Your task to perform on an android device: turn vacation reply on in the gmail app Image 0: 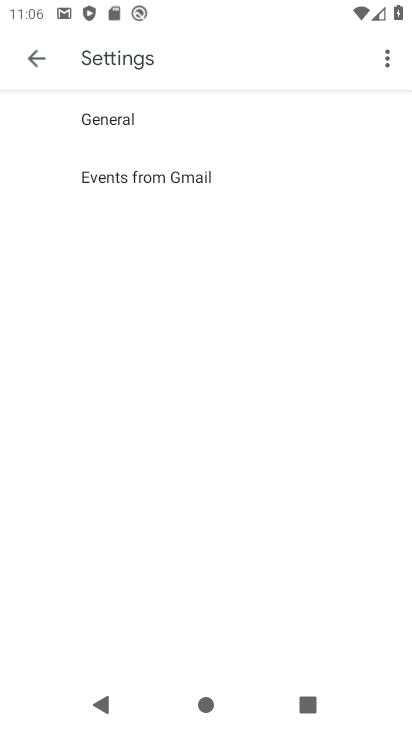
Step 0: press home button
Your task to perform on an android device: turn vacation reply on in the gmail app Image 1: 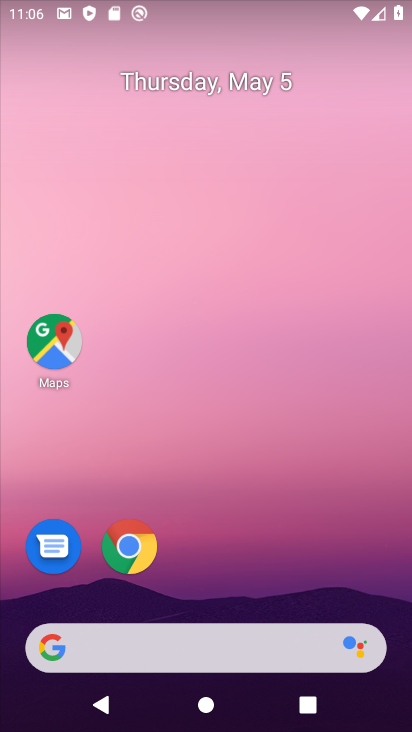
Step 1: drag from (240, 627) to (79, 40)
Your task to perform on an android device: turn vacation reply on in the gmail app Image 2: 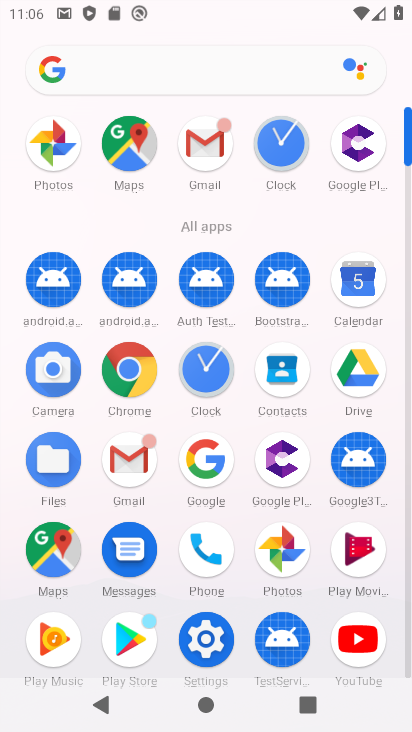
Step 2: click (141, 465)
Your task to perform on an android device: turn vacation reply on in the gmail app Image 3: 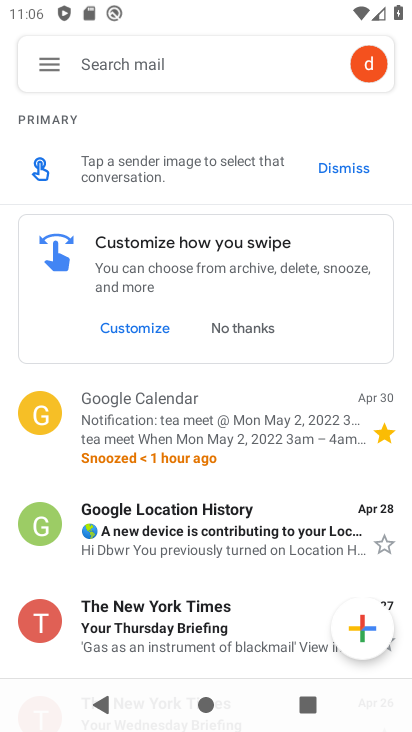
Step 3: click (50, 72)
Your task to perform on an android device: turn vacation reply on in the gmail app Image 4: 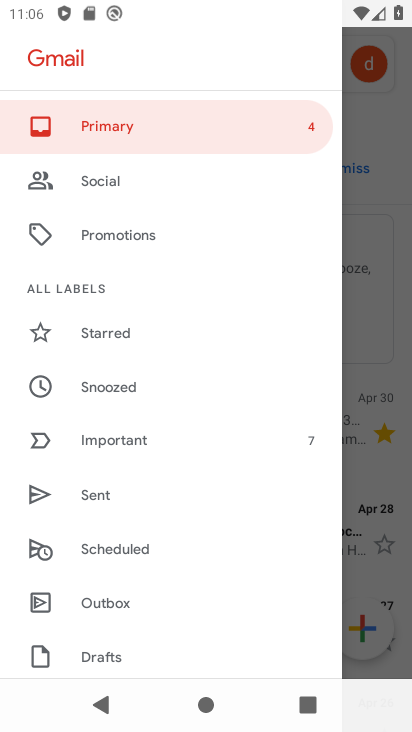
Step 4: drag from (187, 462) to (135, 131)
Your task to perform on an android device: turn vacation reply on in the gmail app Image 5: 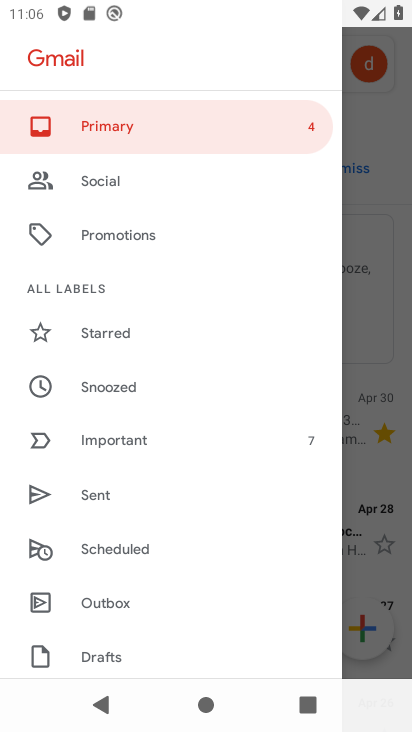
Step 5: drag from (228, 579) to (192, 19)
Your task to perform on an android device: turn vacation reply on in the gmail app Image 6: 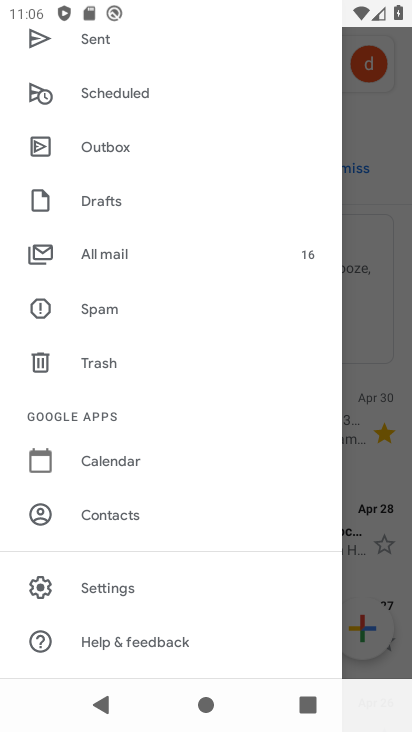
Step 6: click (99, 588)
Your task to perform on an android device: turn vacation reply on in the gmail app Image 7: 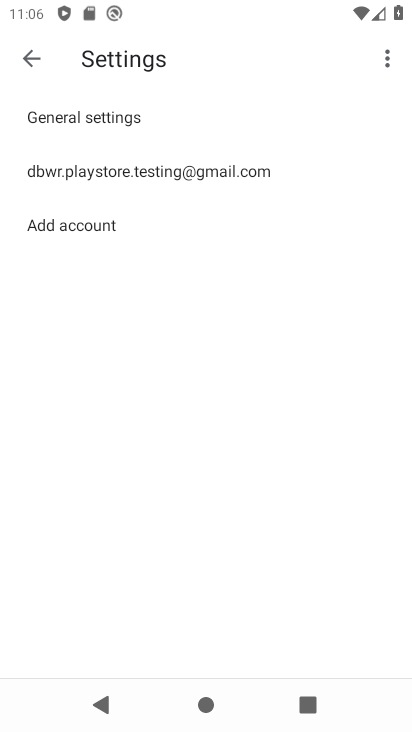
Step 7: click (112, 163)
Your task to perform on an android device: turn vacation reply on in the gmail app Image 8: 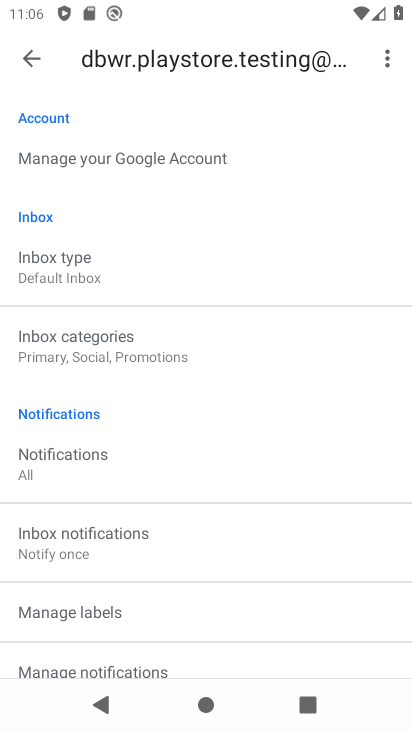
Step 8: drag from (152, 500) to (178, 85)
Your task to perform on an android device: turn vacation reply on in the gmail app Image 9: 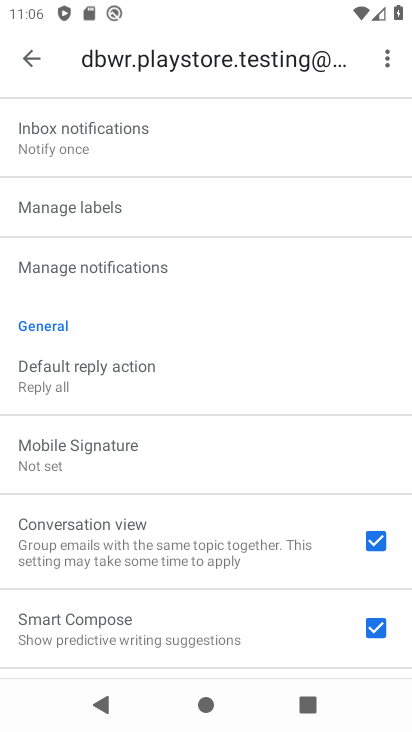
Step 9: drag from (225, 606) to (215, 213)
Your task to perform on an android device: turn vacation reply on in the gmail app Image 10: 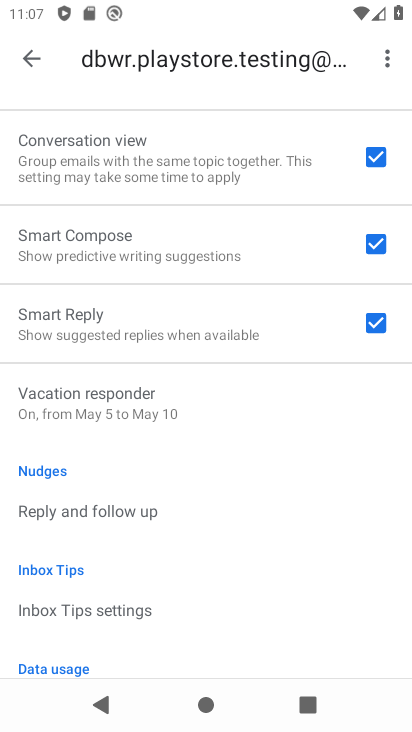
Step 10: click (141, 389)
Your task to perform on an android device: turn vacation reply on in the gmail app Image 11: 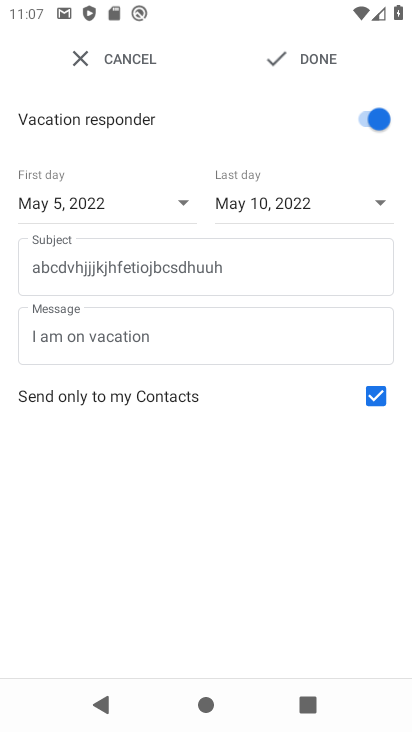
Step 11: click (285, 59)
Your task to perform on an android device: turn vacation reply on in the gmail app Image 12: 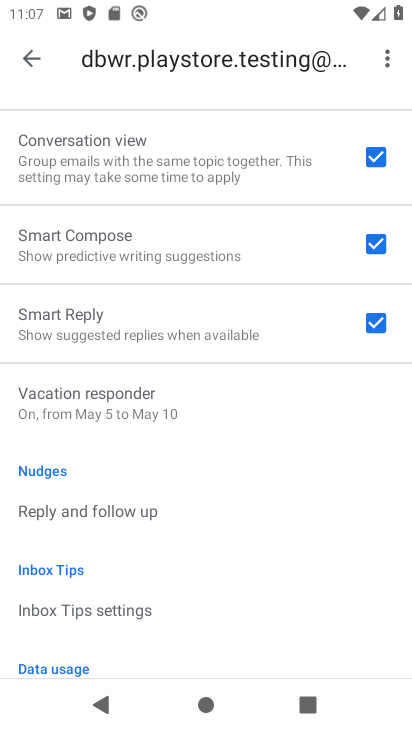
Step 12: press home button
Your task to perform on an android device: turn vacation reply on in the gmail app Image 13: 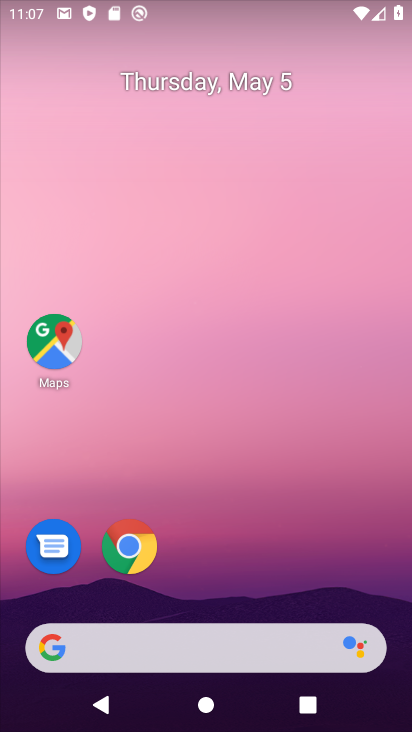
Step 13: drag from (237, 594) to (236, 117)
Your task to perform on an android device: turn vacation reply on in the gmail app Image 14: 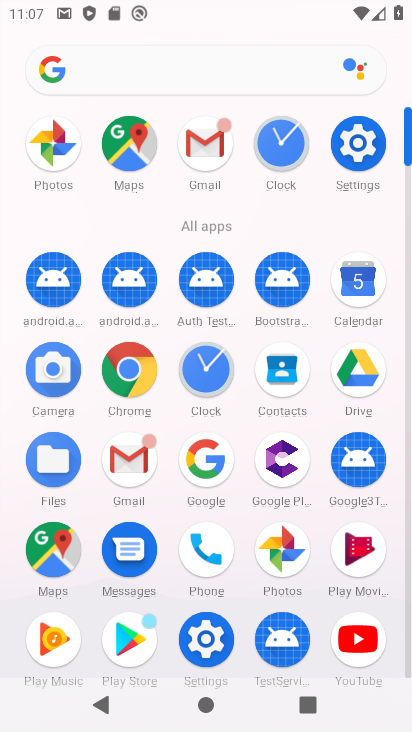
Step 14: click (132, 453)
Your task to perform on an android device: turn vacation reply on in the gmail app Image 15: 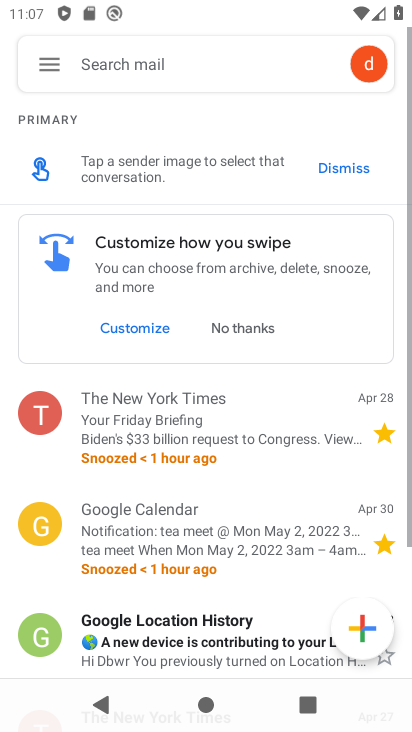
Step 15: click (40, 72)
Your task to perform on an android device: turn vacation reply on in the gmail app Image 16: 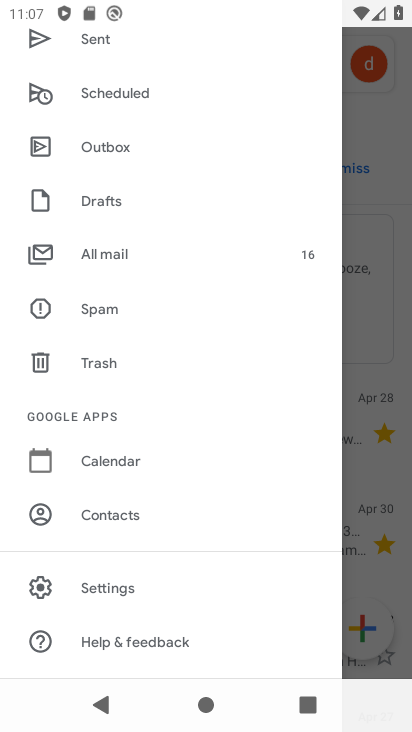
Step 16: click (127, 576)
Your task to perform on an android device: turn vacation reply on in the gmail app Image 17: 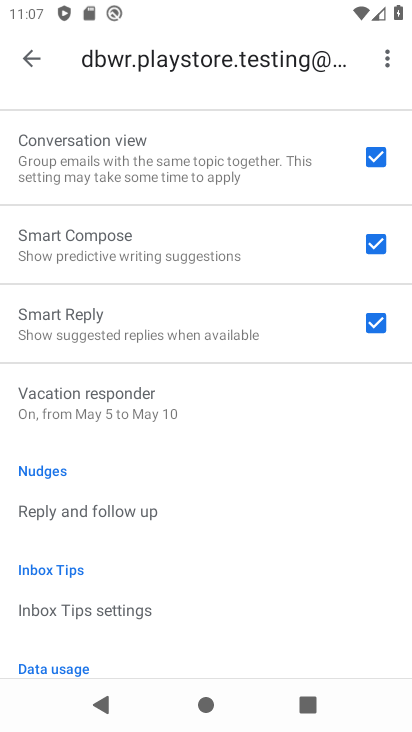
Step 17: click (127, 372)
Your task to perform on an android device: turn vacation reply on in the gmail app Image 18: 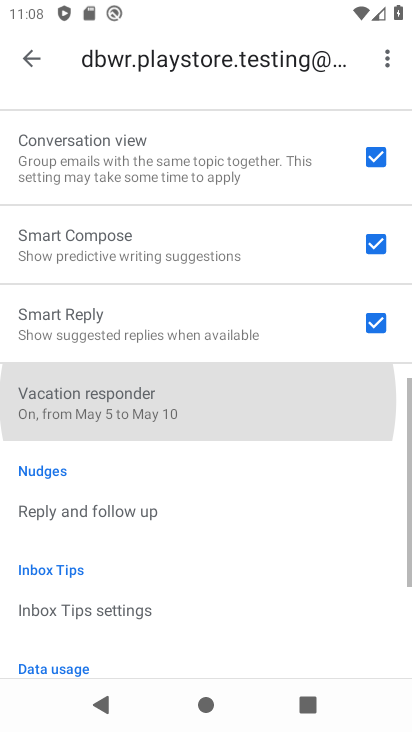
Step 18: click (127, 372)
Your task to perform on an android device: turn vacation reply on in the gmail app Image 19: 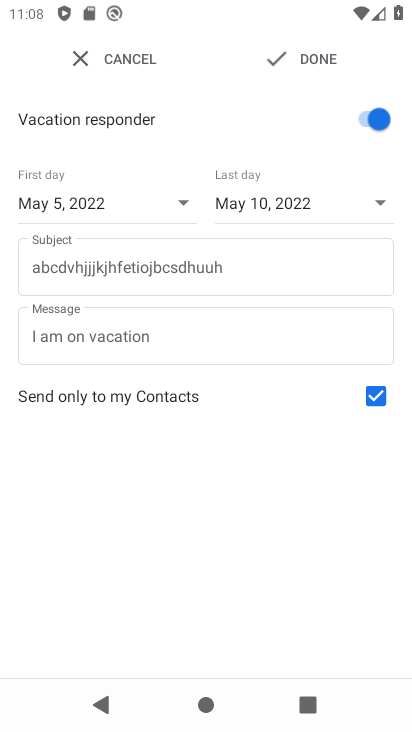
Step 19: click (309, 62)
Your task to perform on an android device: turn vacation reply on in the gmail app Image 20: 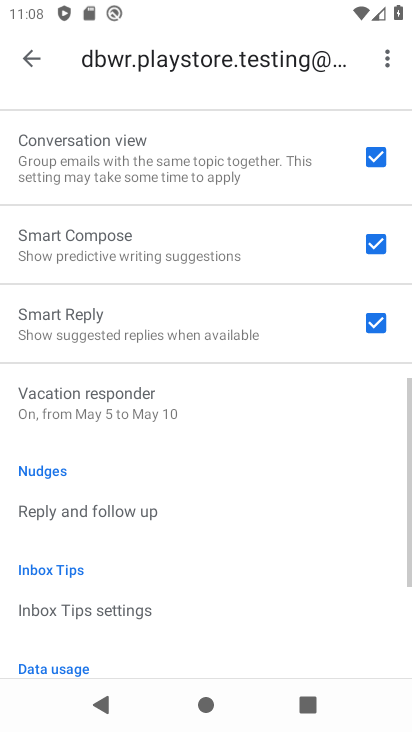
Step 20: task complete